Your task to perform on an android device: toggle notification dots Image 0: 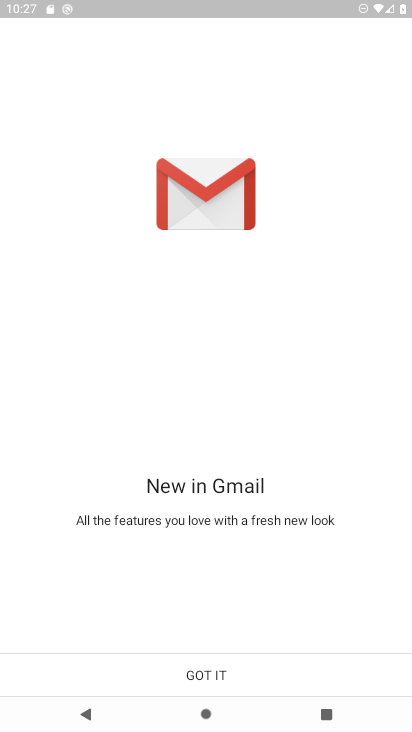
Step 0: press home button
Your task to perform on an android device: toggle notification dots Image 1: 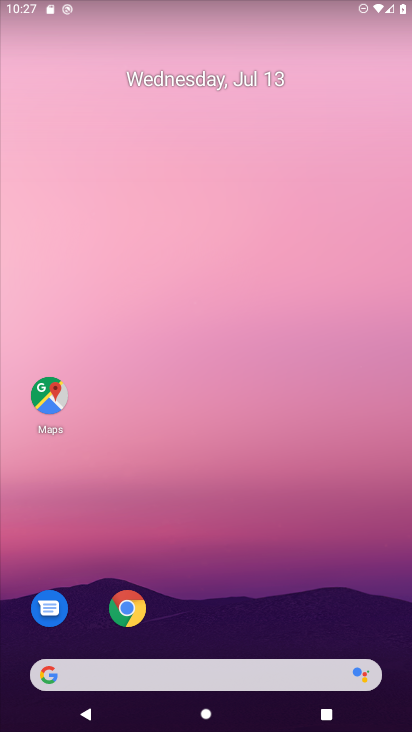
Step 1: drag from (202, 677) to (298, 111)
Your task to perform on an android device: toggle notification dots Image 2: 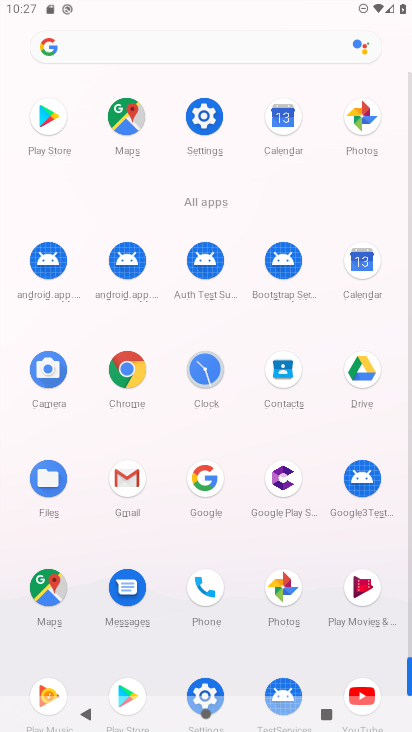
Step 2: click (205, 115)
Your task to perform on an android device: toggle notification dots Image 3: 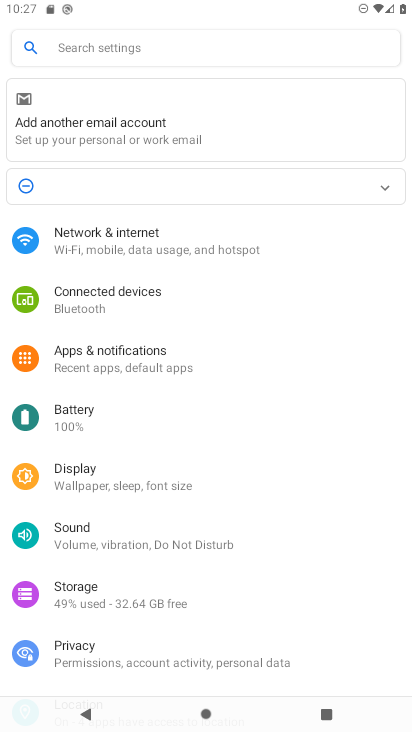
Step 3: click (111, 357)
Your task to perform on an android device: toggle notification dots Image 4: 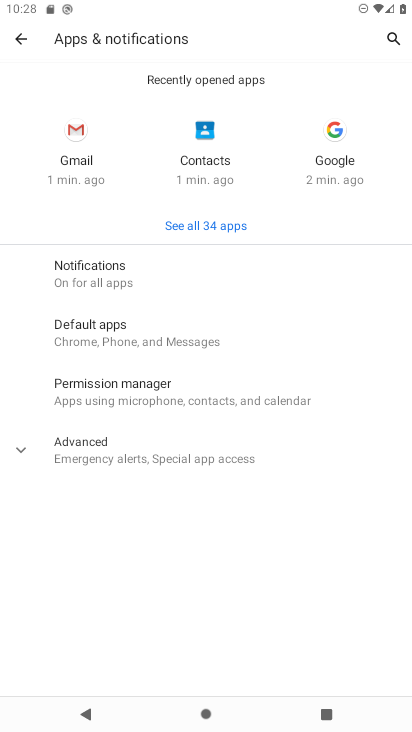
Step 4: click (112, 276)
Your task to perform on an android device: toggle notification dots Image 5: 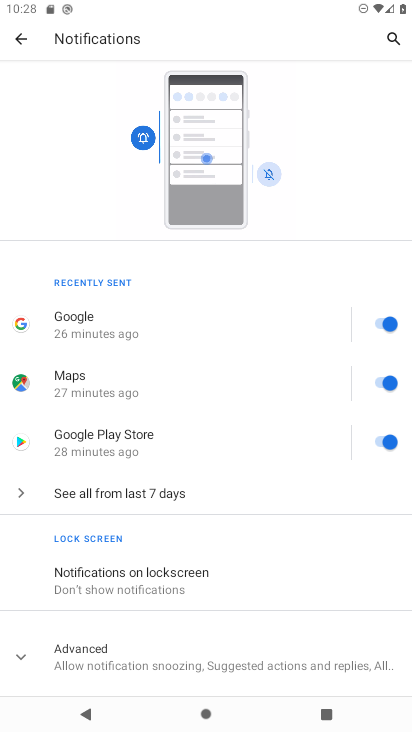
Step 5: click (109, 658)
Your task to perform on an android device: toggle notification dots Image 6: 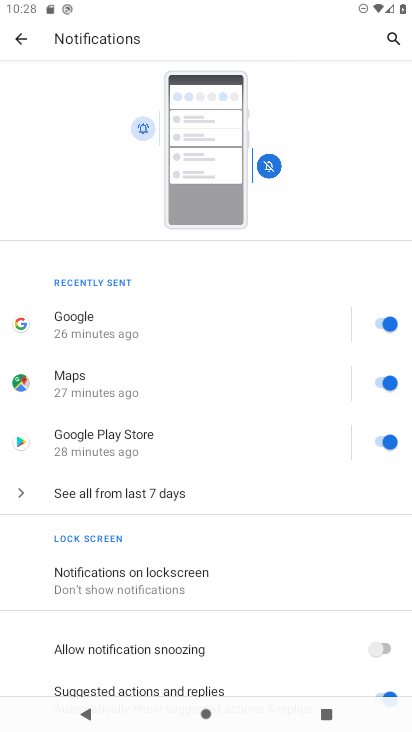
Step 6: drag from (82, 668) to (186, 552)
Your task to perform on an android device: toggle notification dots Image 7: 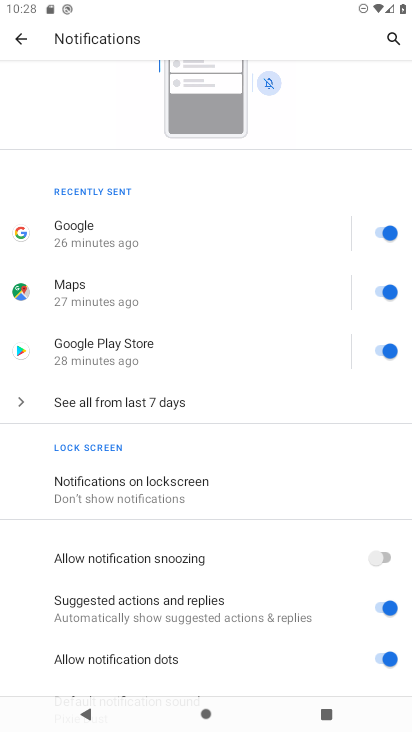
Step 7: click (388, 657)
Your task to perform on an android device: toggle notification dots Image 8: 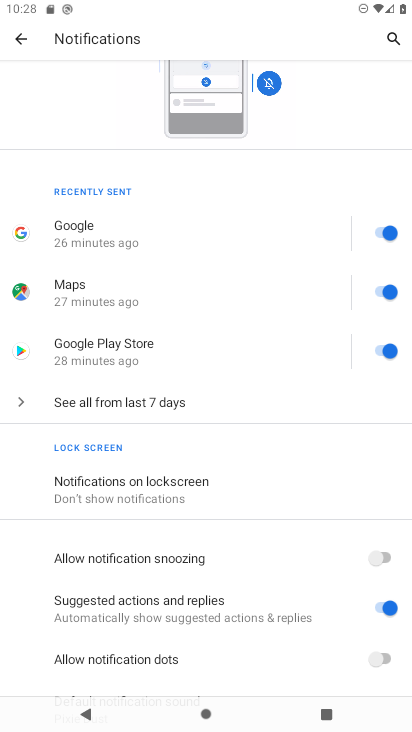
Step 8: task complete